Your task to perform on an android device: Go to privacy settings Image 0: 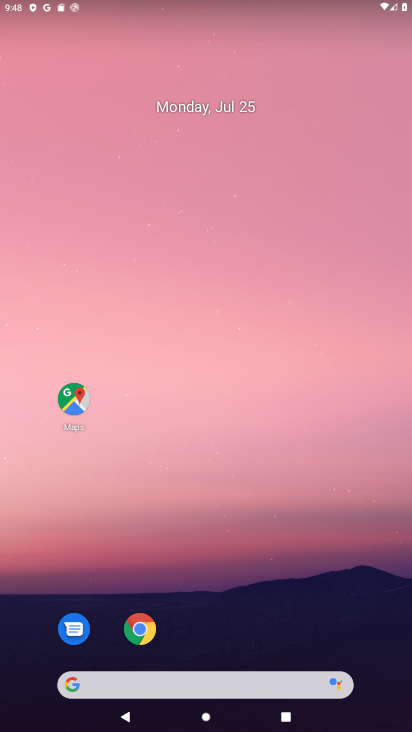
Step 0: drag from (242, 619) to (277, 0)
Your task to perform on an android device: Go to privacy settings Image 1: 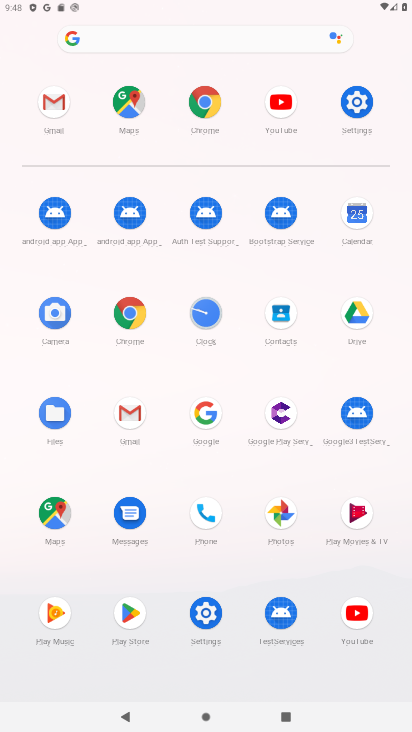
Step 1: click (354, 129)
Your task to perform on an android device: Go to privacy settings Image 2: 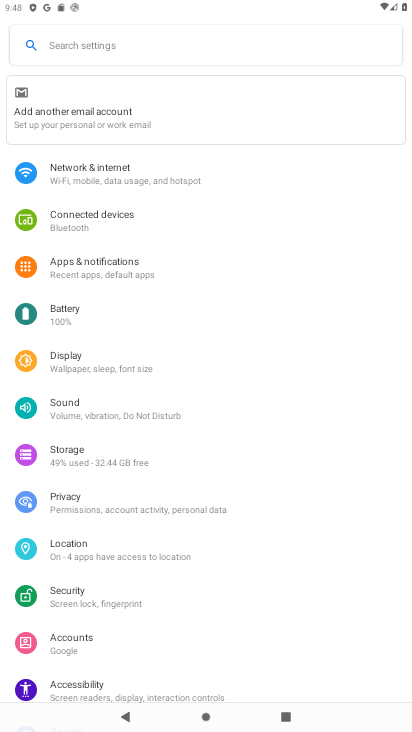
Step 2: click (76, 511)
Your task to perform on an android device: Go to privacy settings Image 3: 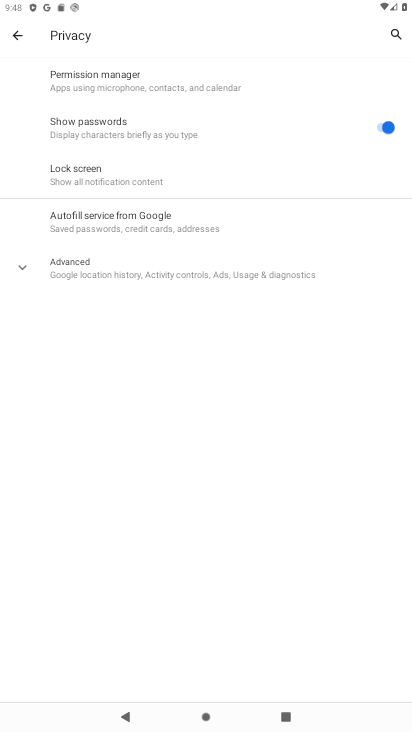
Step 3: task complete